Your task to perform on an android device: Open my contact list Image 0: 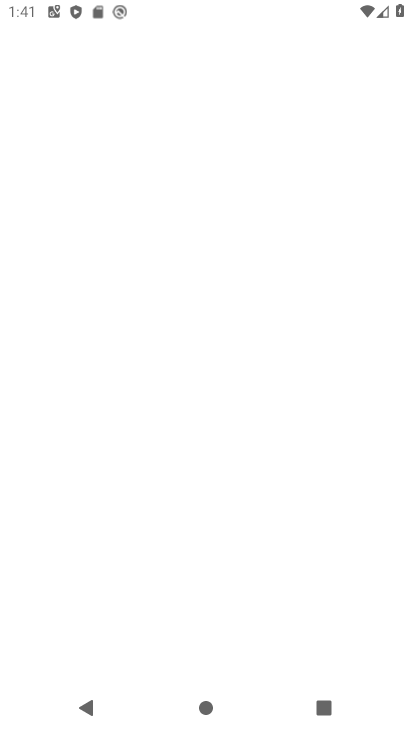
Step 0: drag from (186, 555) to (197, 243)
Your task to perform on an android device: Open my contact list Image 1: 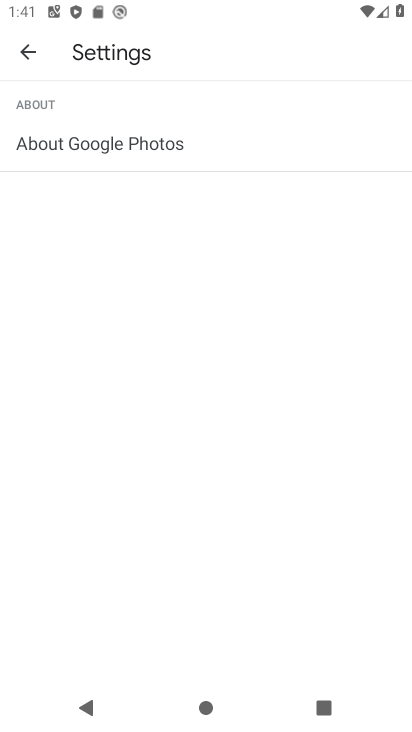
Step 1: press home button
Your task to perform on an android device: Open my contact list Image 2: 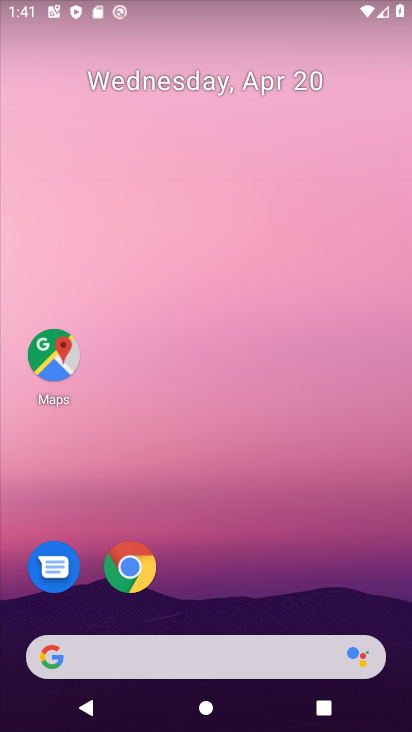
Step 2: drag from (243, 611) to (205, 290)
Your task to perform on an android device: Open my contact list Image 3: 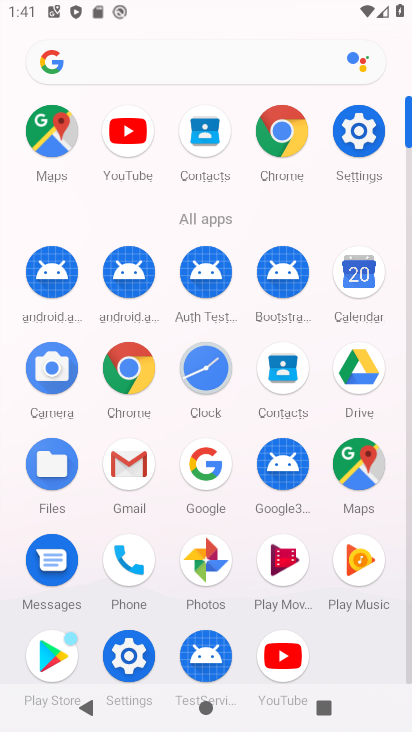
Step 3: click (277, 385)
Your task to perform on an android device: Open my contact list Image 4: 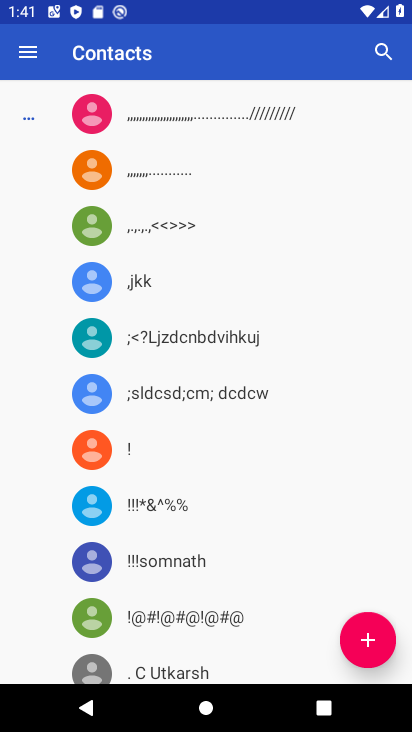
Step 4: task complete